Your task to perform on an android device: toggle data saver in the chrome app Image 0: 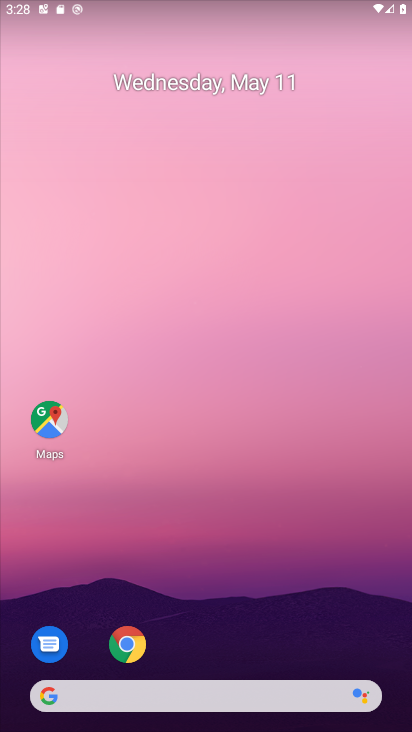
Step 0: drag from (202, 679) to (335, 42)
Your task to perform on an android device: toggle data saver in the chrome app Image 1: 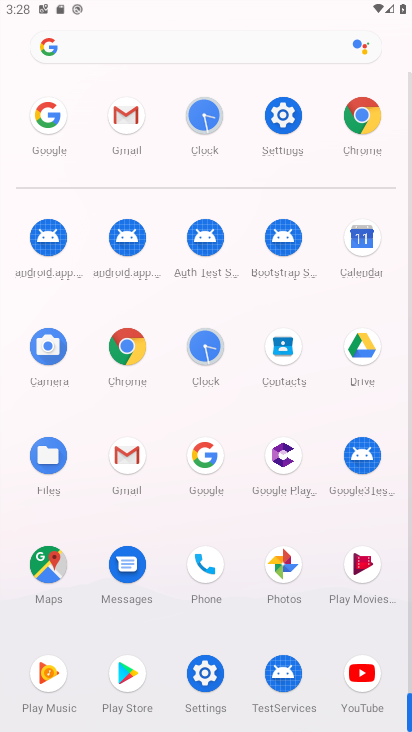
Step 1: click (357, 123)
Your task to perform on an android device: toggle data saver in the chrome app Image 2: 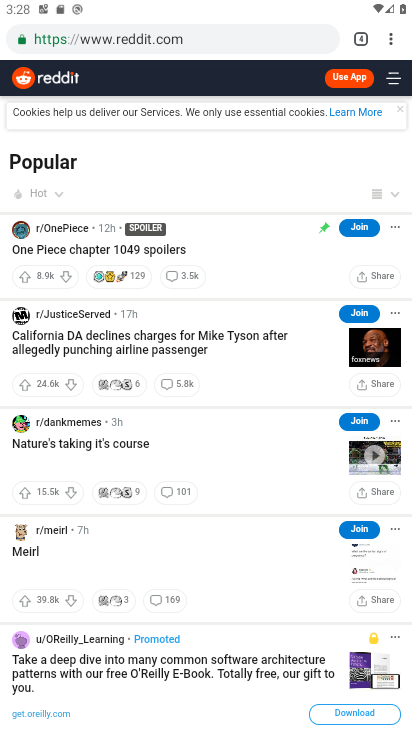
Step 2: click (381, 48)
Your task to perform on an android device: toggle data saver in the chrome app Image 3: 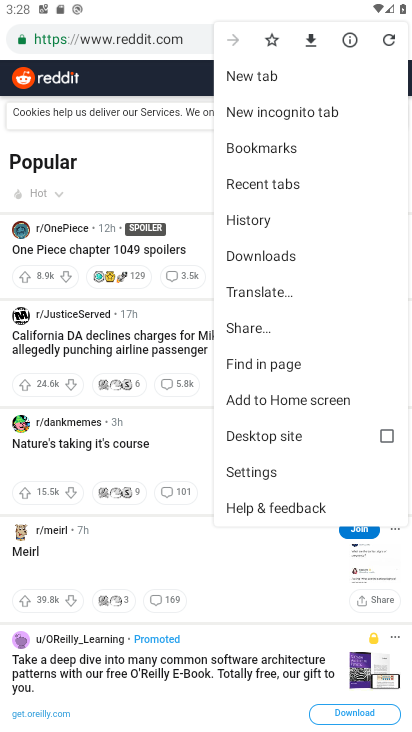
Step 3: click (255, 473)
Your task to perform on an android device: toggle data saver in the chrome app Image 4: 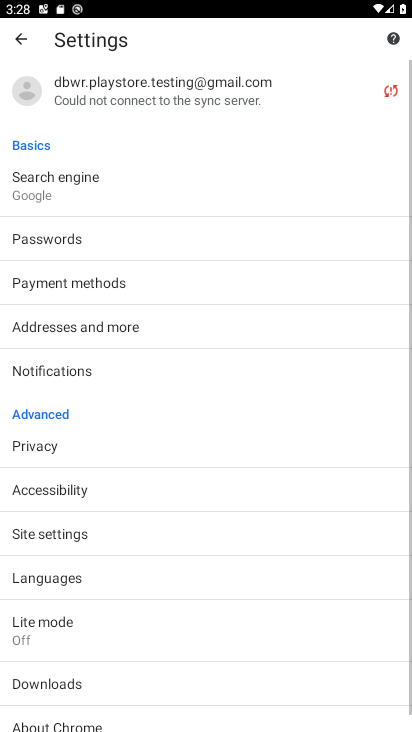
Step 4: click (111, 631)
Your task to perform on an android device: toggle data saver in the chrome app Image 5: 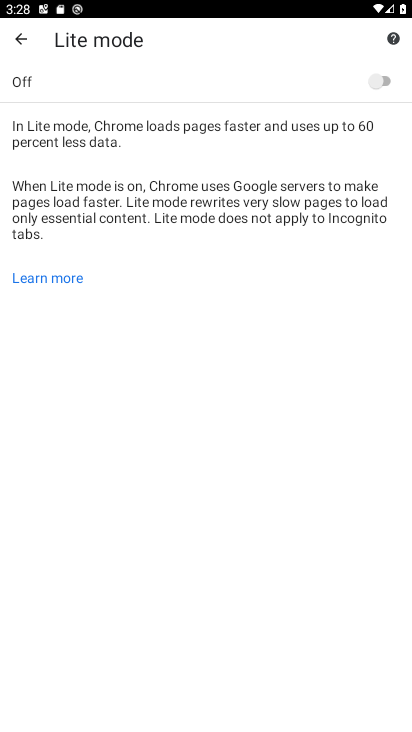
Step 5: click (382, 83)
Your task to perform on an android device: toggle data saver in the chrome app Image 6: 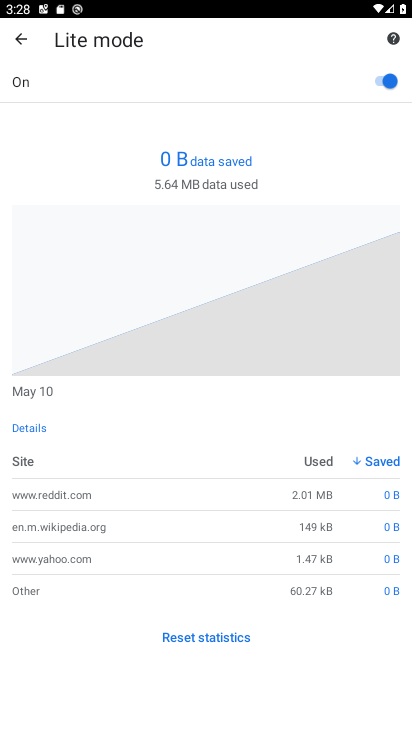
Step 6: task complete